Your task to perform on an android device: Go to battery settings Image 0: 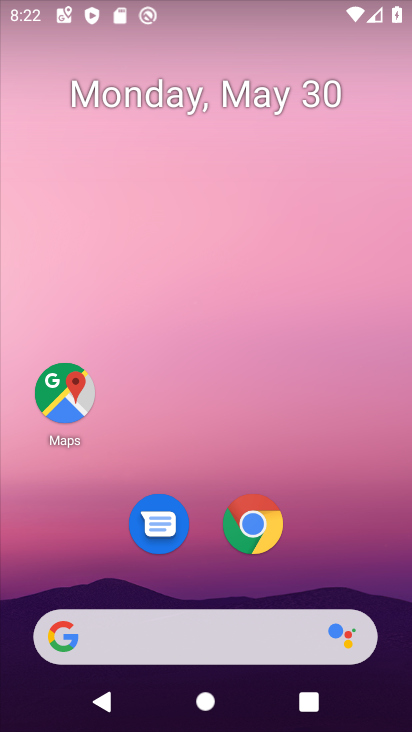
Step 0: drag from (342, 526) to (383, 45)
Your task to perform on an android device: Go to battery settings Image 1: 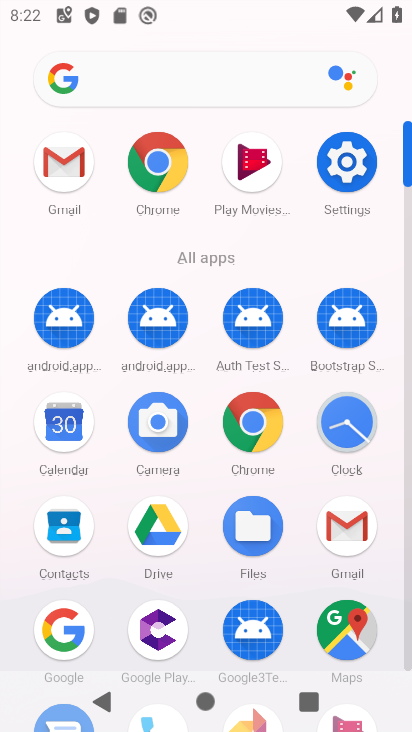
Step 1: click (351, 154)
Your task to perform on an android device: Go to battery settings Image 2: 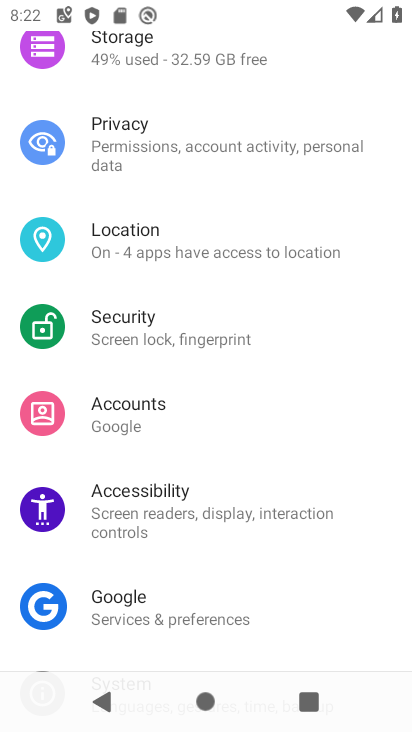
Step 2: drag from (218, 182) to (219, 631)
Your task to perform on an android device: Go to battery settings Image 3: 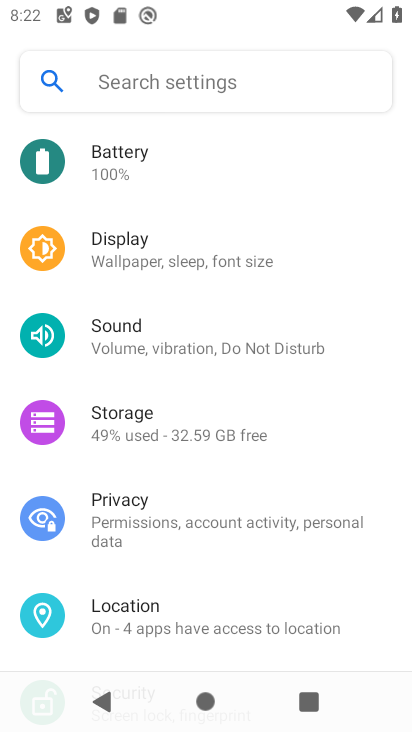
Step 3: click (191, 164)
Your task to perform on an android device: Go to battery settings Image 4: 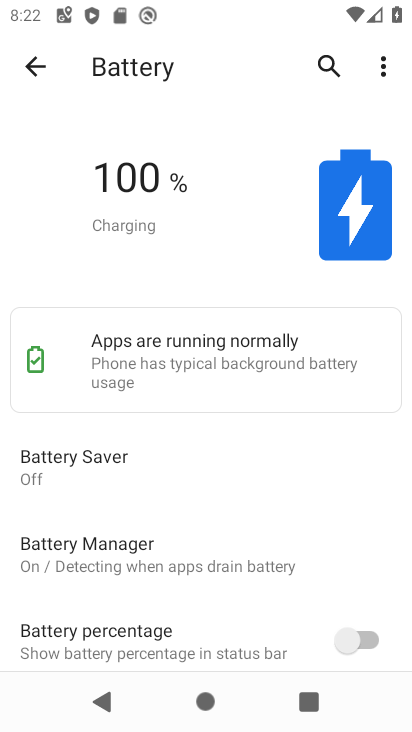
Step 4: task complete